Your task to perform on an android device: Show the shopping cart on costco.com. Image 0: 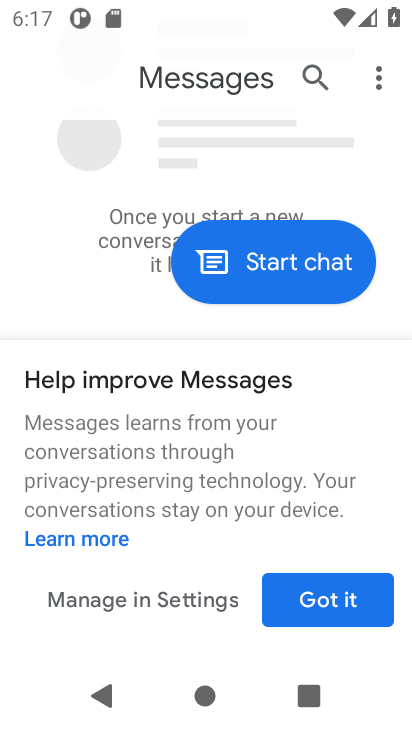
Step 0: press home button
Your task to perform on an android device: Show the shopping cart on costco.com. Image 1: 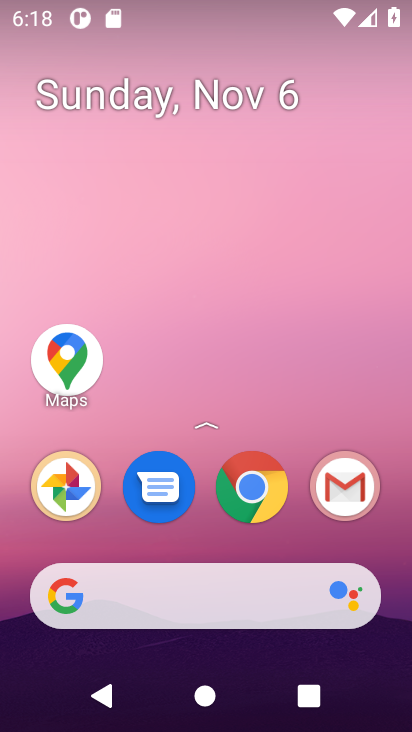
Step 1: click (273, 489)
Your task to perform on an android device: Show the shopping cart on costco.com. Image 2: 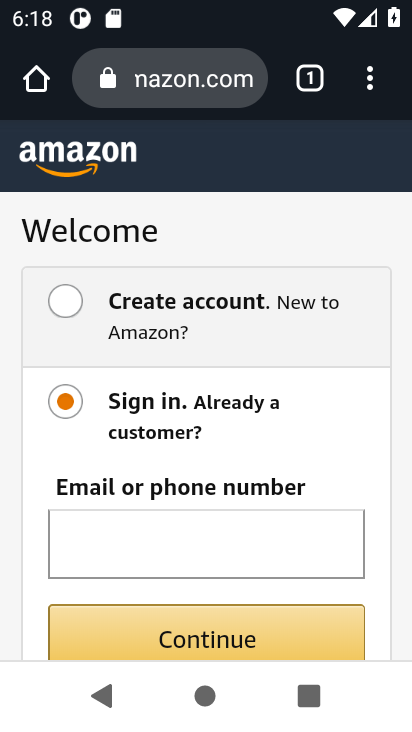
Step 2: click (189, 65)
Your task to perform on an android device: Show the shopping cart on costco.com. Image 3: 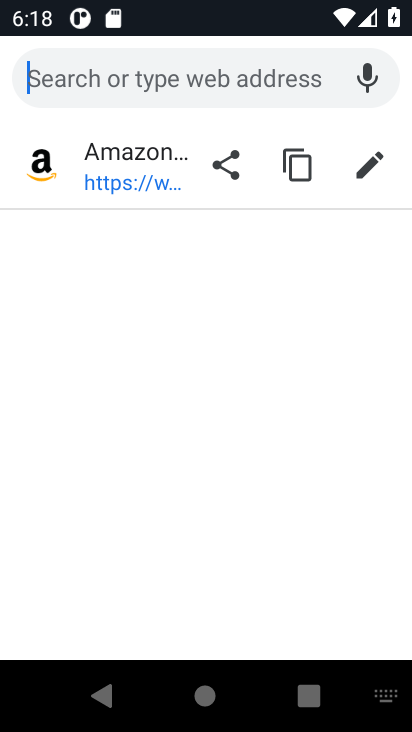
Step 3: type " costco.com."
Your task to perform on an android device: Show the shopping cart on costco.com. Image 4: 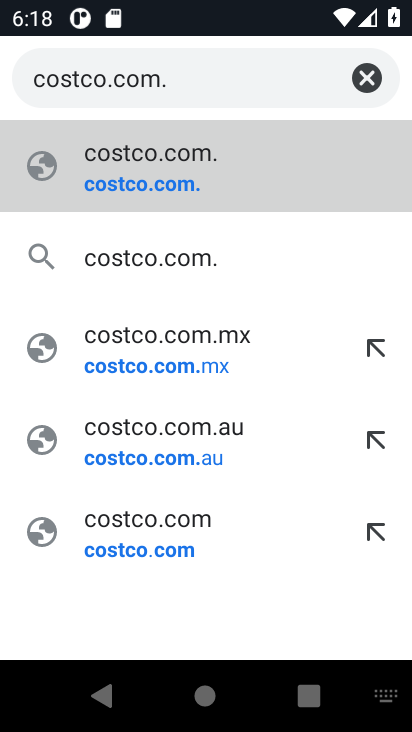
Step 4: click (81, 187)
Your task to perform on an android device: Show the shopping cart on costco.com. Image 5: 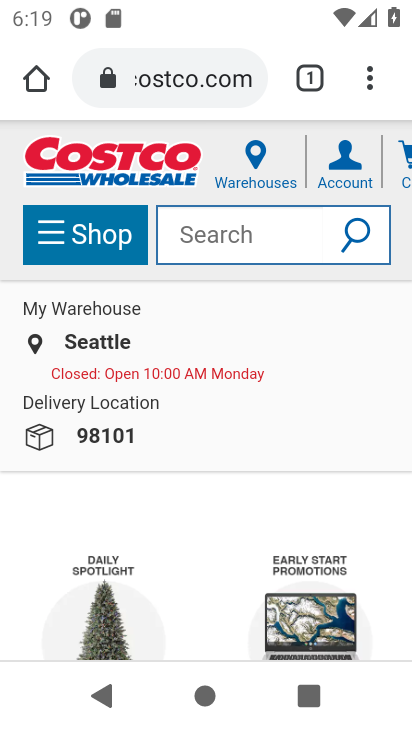
Step 5: click (216, 238)
Your task to perform on an android device: Show the shopping cart on costco.com. Image 6: 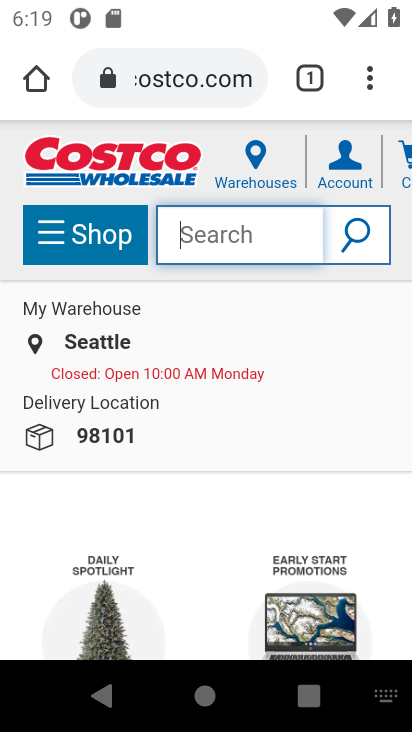
Step 6: click (404, 167)
Your task to perform on an android device: Show the shopping cart on costco.com. Image 7: 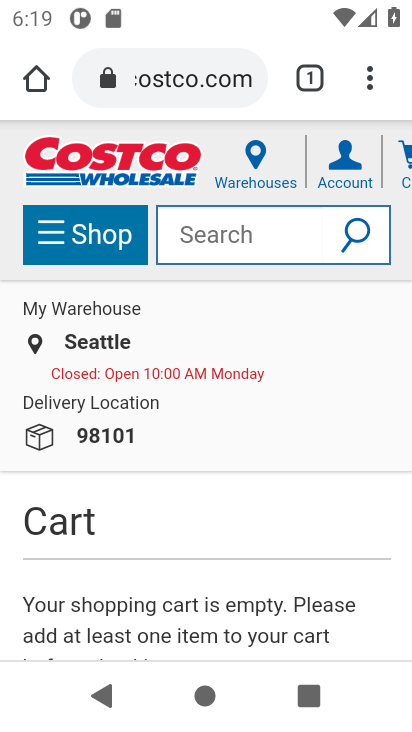
Step 7: task complete